Your task to perform on an android device: turn off smart reply in the gmail app Image 0: 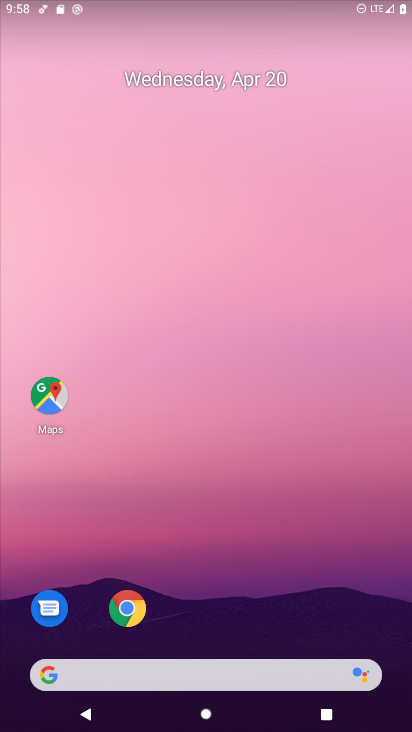
Step 0: drag from (219, 615) to (313, 33)
Your task to perform on an android device: turn off smart reply in the gmail app Image 1: 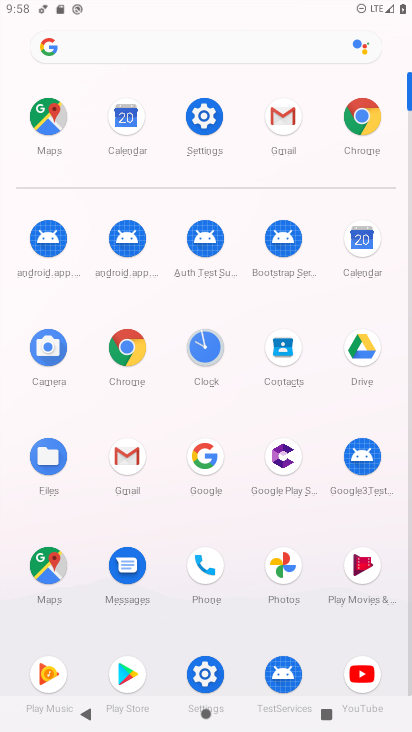
Step 1: click (125, 457)
Your task to perform on an android device: turn off smart reply in the gmail app Image 2: 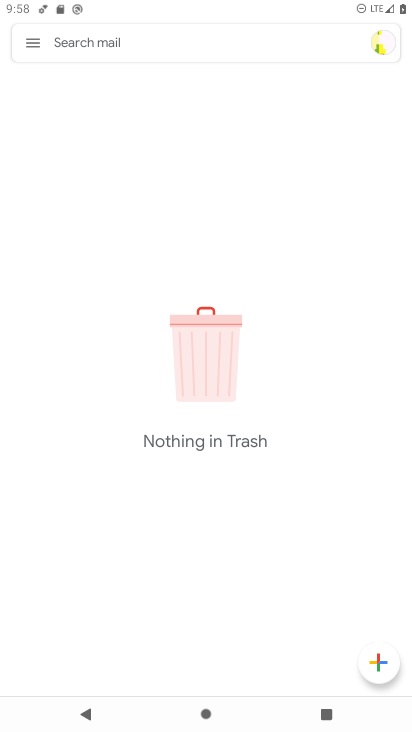
Step 2: click (31, 42)
Your task to perform on an android device: turn off smart reply in the gmail app Image 3: 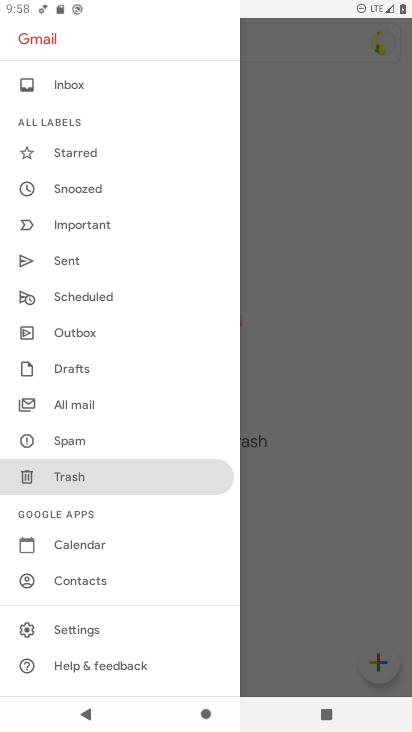
Step 3: click (85, 631)
Your task to perform on an android device: turn off smart reply in the gmail app Image 4: 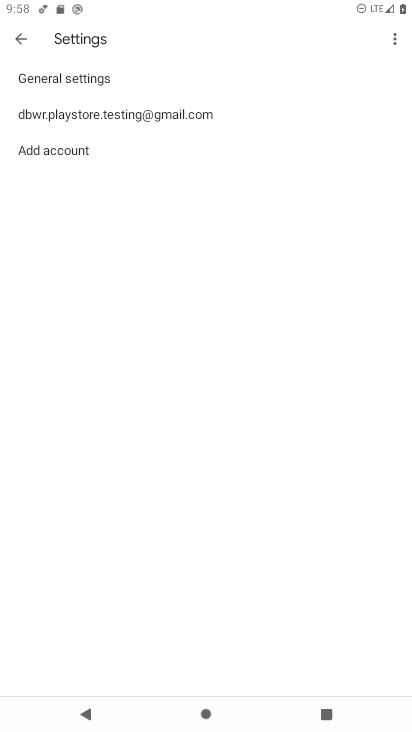
Step 4: click (114, 112)
Your task to perform on an android device: turn off smart reply in the gmail app Image 5: 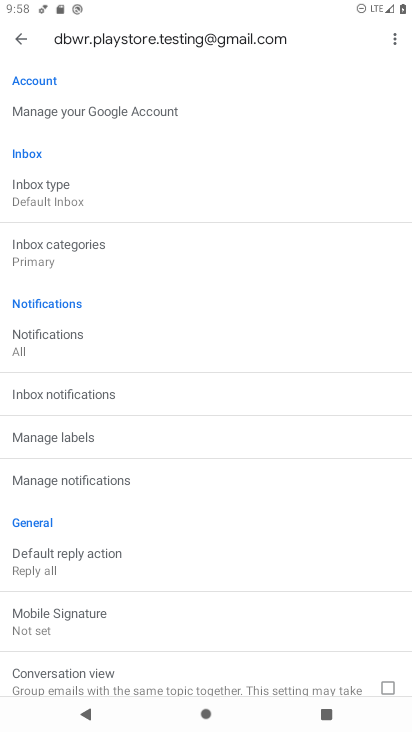
Step 5: drag from (96, 615) to (173, 206)
Your task to perform on an android device: turn off smart reply in the gmail app Image 6: 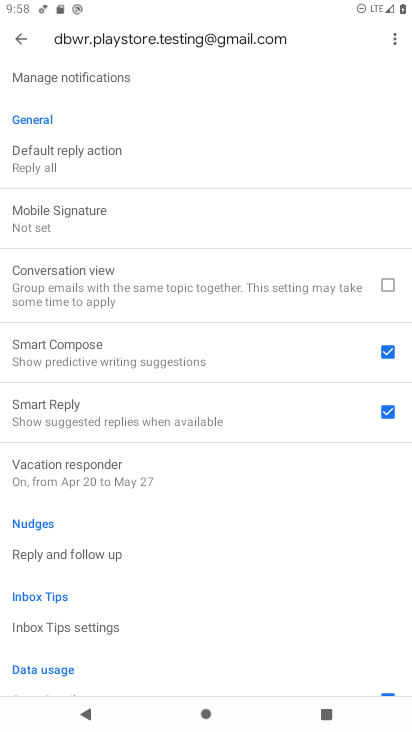
Step 6: click (377, 416)
Your task to perform on an android device: turn off smart reply in the gmail app Image 7: 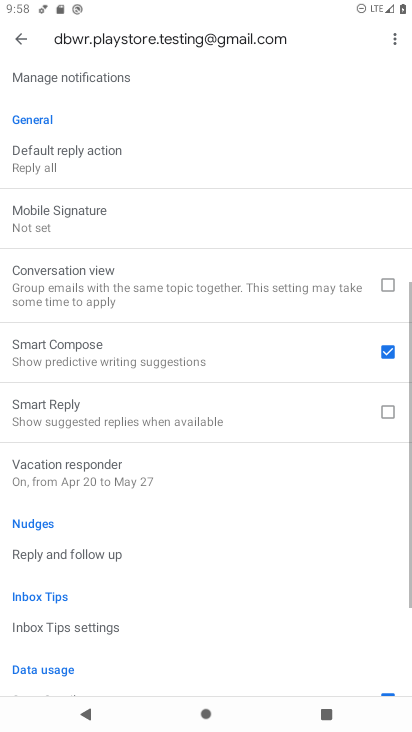
Step 7: task complete